Your task to perform on an android device: turn on the 24-hour format for clock Image 0: 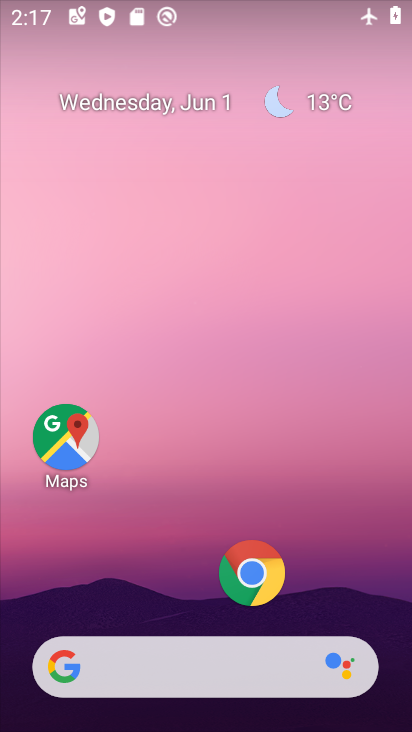
Step 0: drag from (200, 629) to (137, 40)
Your task to perform on an android device: turn on the 24-hour format for clock Image 1: 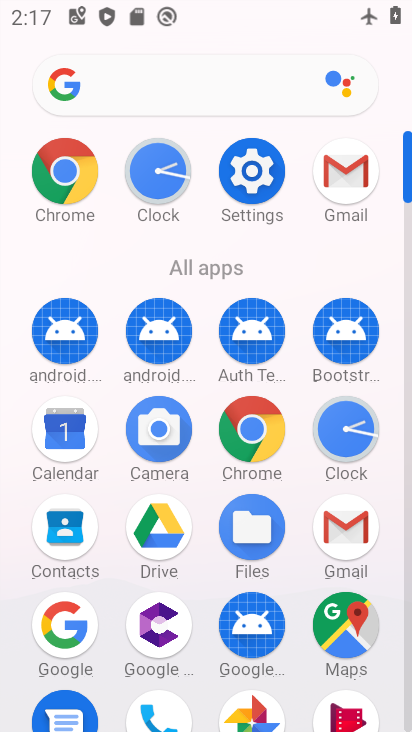
Step 1: click (331, 439)
Your task to perform on an android device: turn on the 24-hour format for clock Image 2: 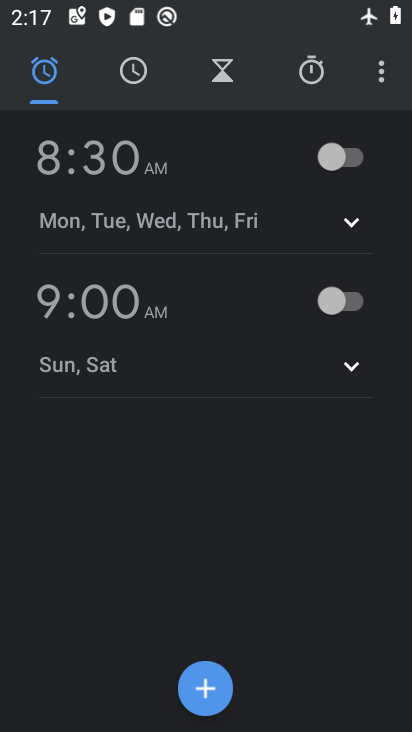
Step 2: click (384, 74)
Your task to perform on an android device: turn on the 24-hour format for clock Image 3: 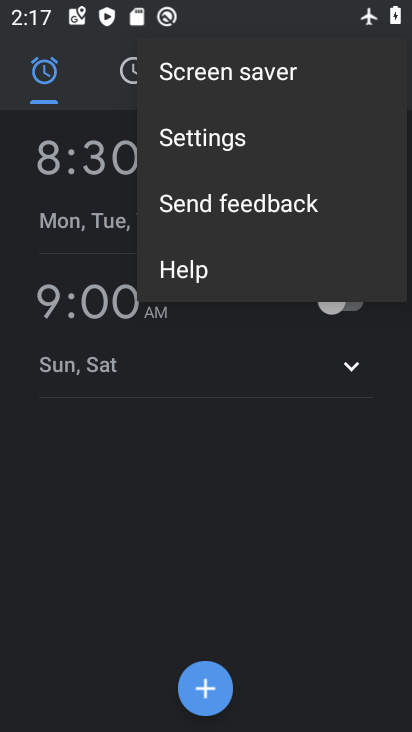
Step 3: click (223, 137)
Your task to perform on an android device: turn on the 24-hour format for clock Image 4: 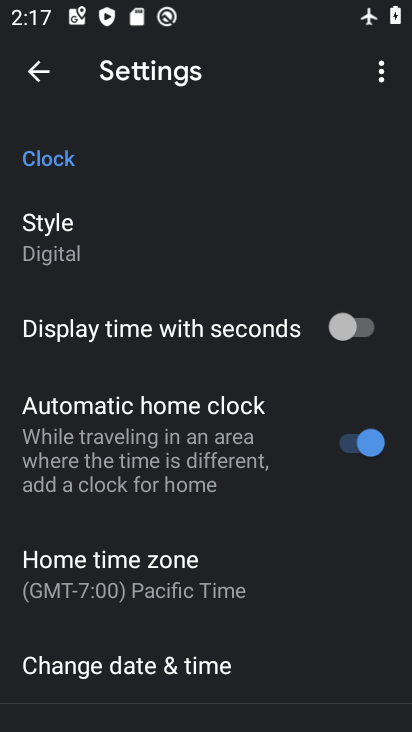
Step 4: drag from (176, 568) to (145, 184)
Your task to perform on an android device: turn on the 24-hour format for clock Image 5: 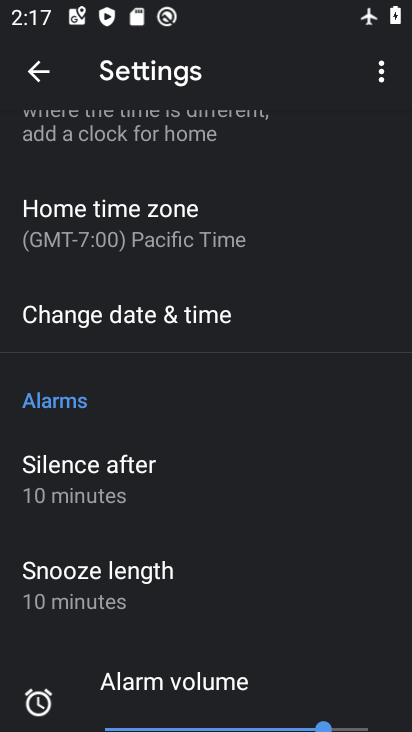
Step 5: click (148, 324)
Your task to perform on an android device: turn on the 24-hour format for clock Image 6: 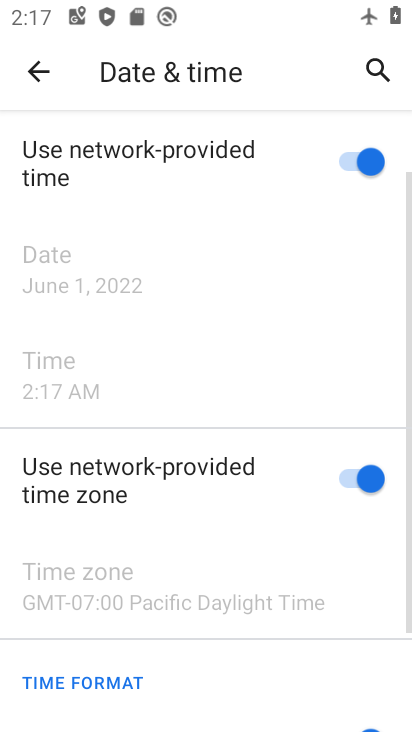
Step 6: drag from (159, 544) to (125, 87)
Your task to perform on an android device: turn on the 24-hour format for clock Image 7: 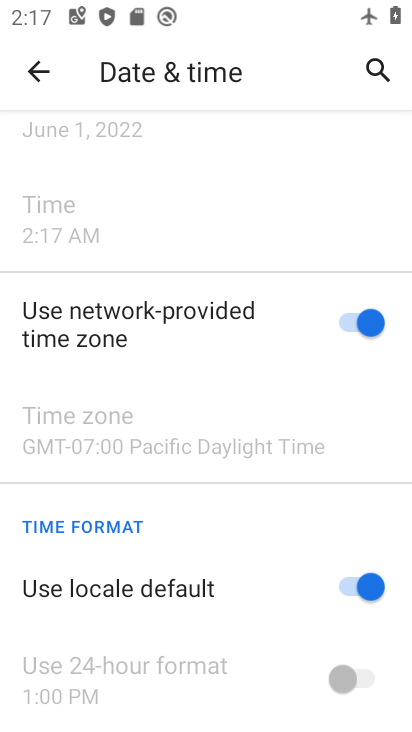
Step 7: click (334, 591)
Your task to perform on an android device: turn on the 24-hour format for clock Image 8: 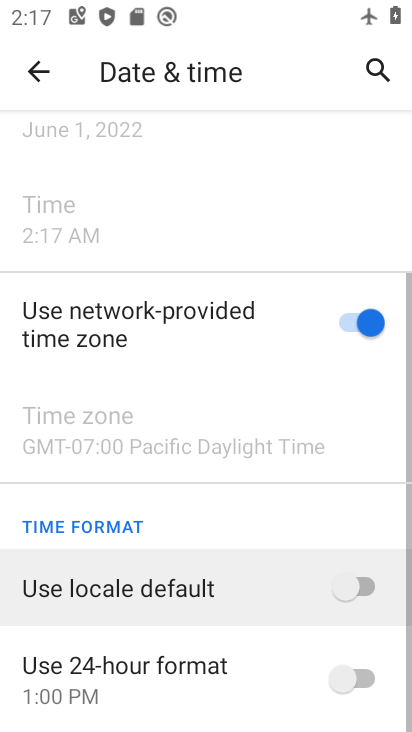
Step 8: click (363, 680)
Your task to perform on an android device: turn on the 24-hour format for clock Image 9: 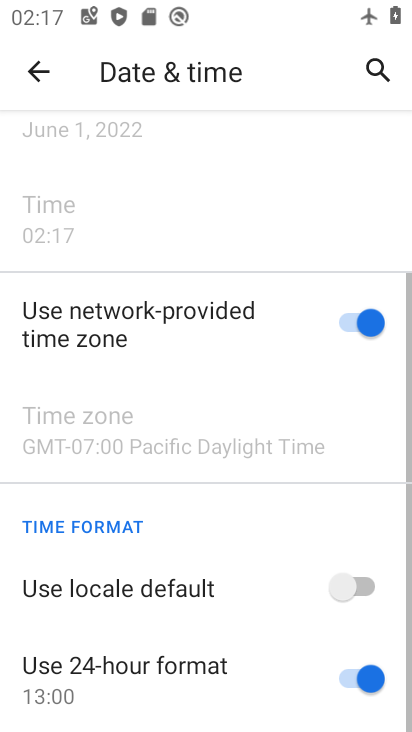
Step 9: task complete